Your task to perform on an android device: uninstall "Google Home" Image 0: 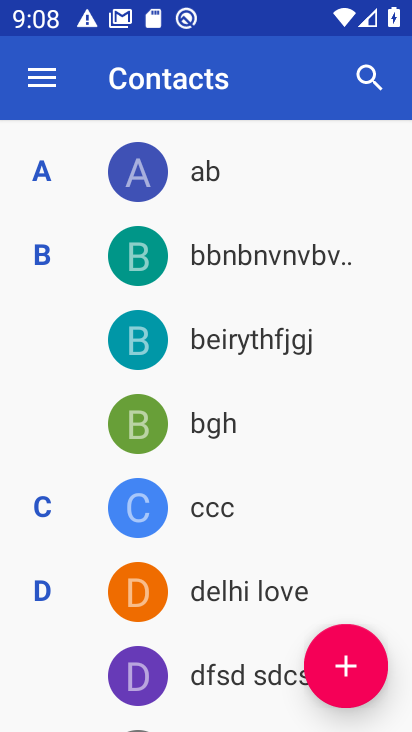
Step 0: press home button
Your task to perform on an android device: uninstall "Google Home" Image 1: 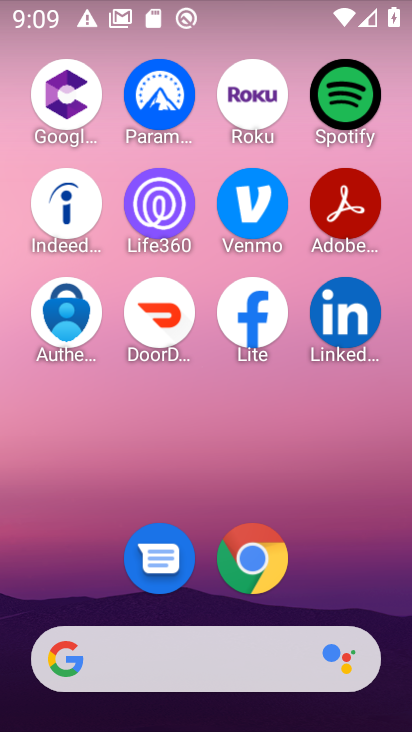
Step 1: drag from (202, 621) to (185, 161)
Your task to perform on an android device: uninstall "Google Home" Image 2: 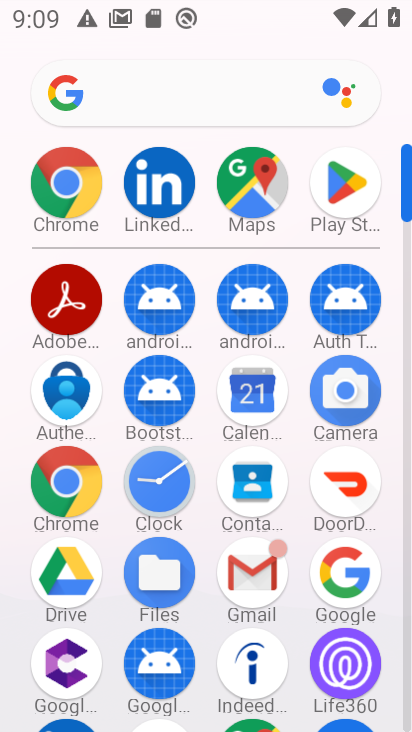
Step 2: click (331, 169)
Your task to perform on an android device: uninstall "Google Home" Image 3: 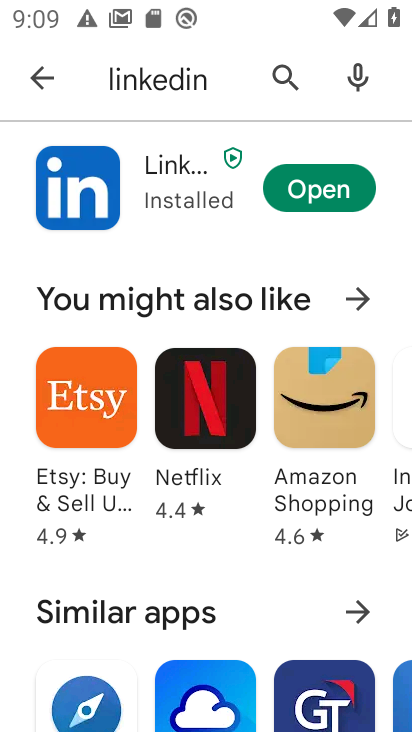
Step 3: click (286, 84)
Your task to perform on an android device: uninstall "Google Home" Image 4: 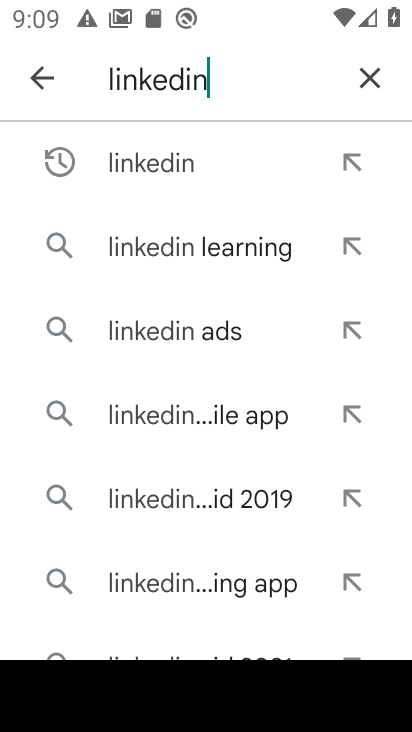
Step 4: click (388, 69)
Your task to perform on an android device: uninstall "Google Home" Image 5: 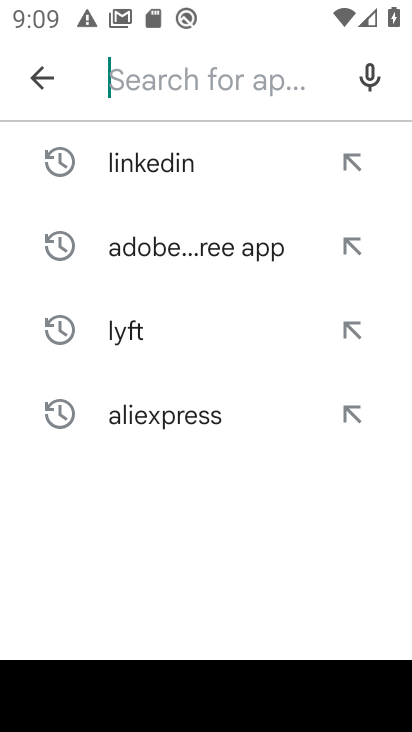
Step 5: type "google home"
Your task to perform on an android device: uninstall "Google Home" Image 6: 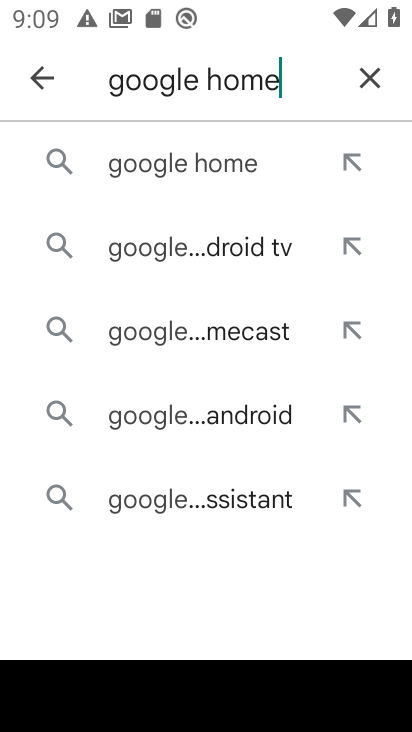
Step 6: click (177, 170)
Your task to perform on an android device: uninstall "Google Home" Image 7: 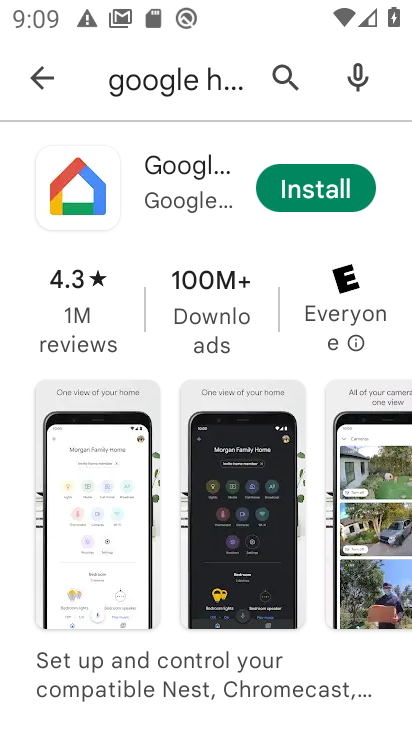
Step 7: task complete